Your task to perform on an android device: Open maps Image 0: 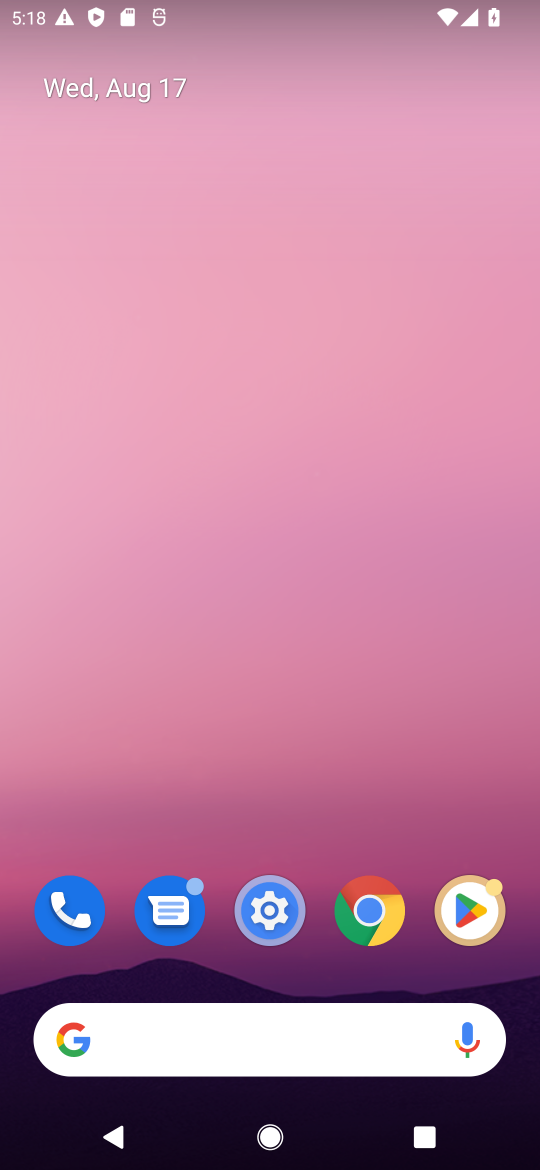
Step 0: drag from (268, 915) to (349, 93)
Your task to perform on an android device: Open maps Image 1: 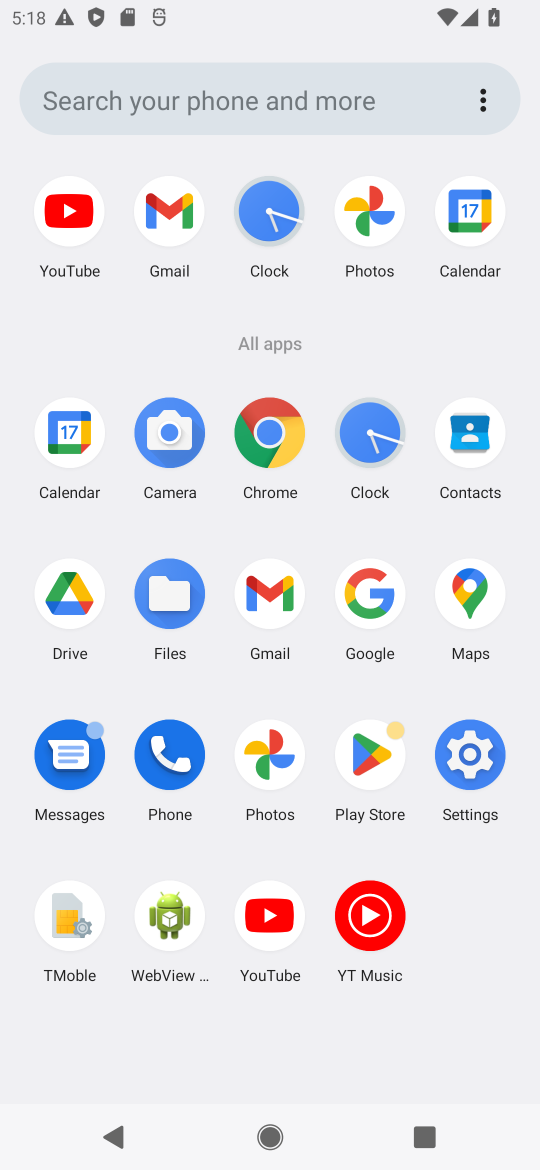
Step 1: click (483, 598)
Your task to perform on an android device: Open maps Image 2: 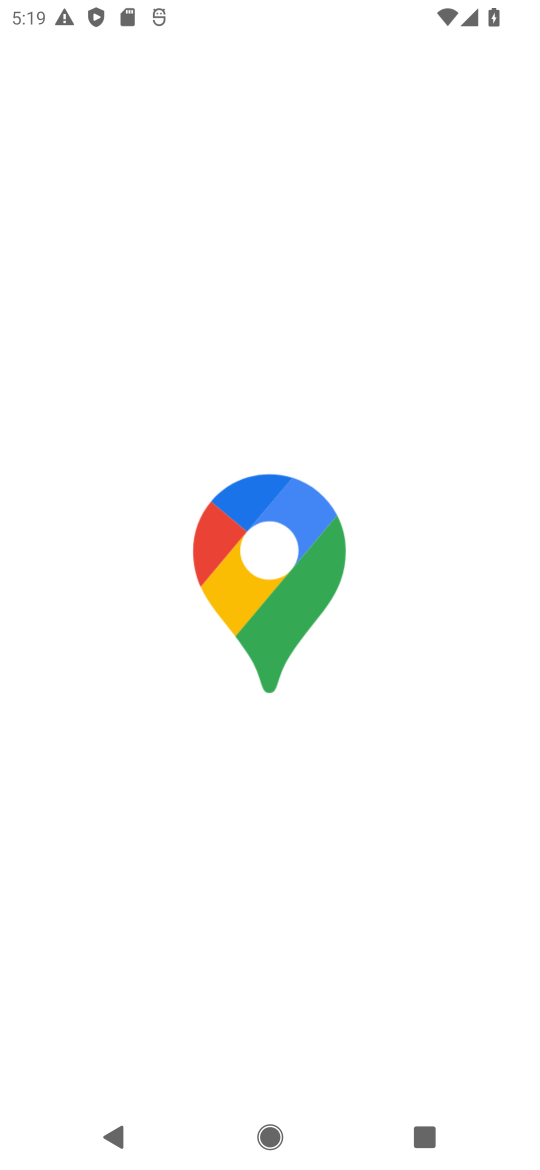
Step 2: task complete